Your task to perform on an android device: turn pop-ups on in chrome Image 0: 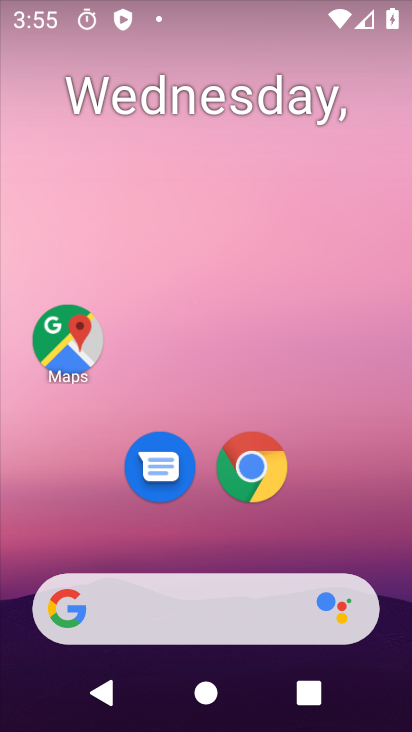
Step 0: click (252, 468)
Your task to perform on an android device: turn pop-ups on in chrome Image 1: 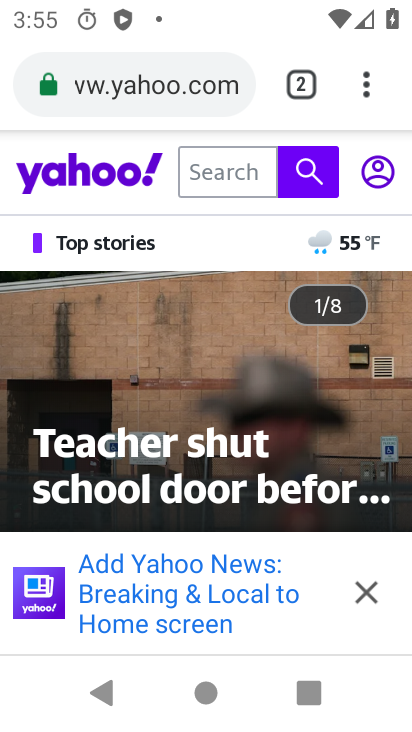
Step 1: click (364, 77)
Your task to perform on an android device: turn pop-ups on in chrome Image 2: 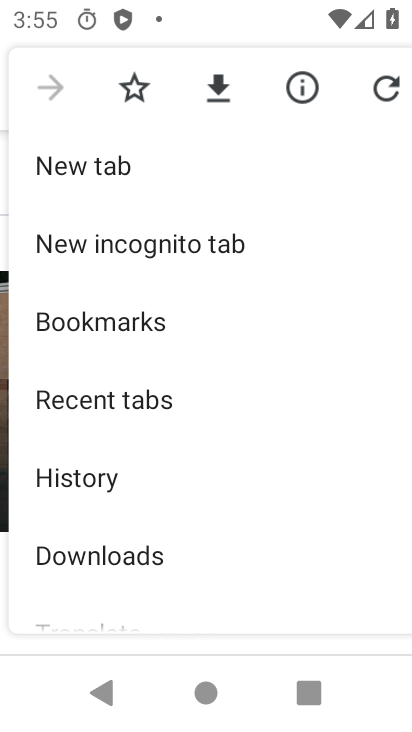
Step 2: drag from (233, 424) to (189, 51)
Your task to perform on an android device: turn pop-ups on in chrome Image 3: 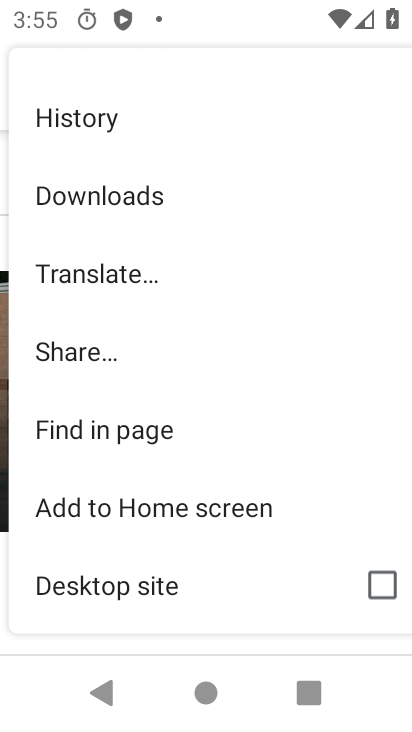
Step 3: drag from (197, 461) to (224, 92)
Your task to perform on an android device: turn pop-ups on in chrome Image 4: 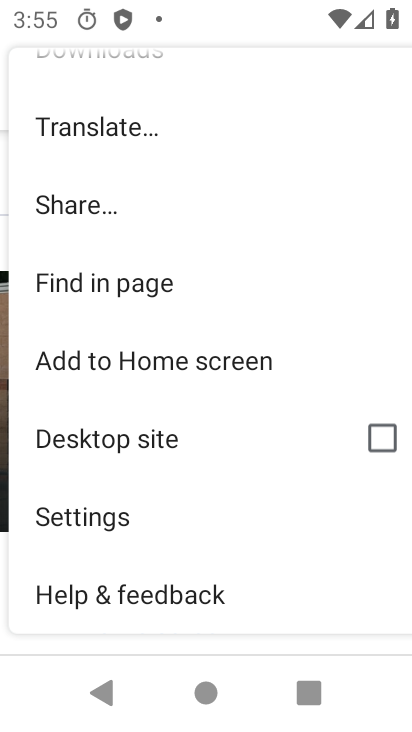
Step 4: click (147, 517)
Your task to perform on an android device: turn pop-ups on in chrome Image 5: 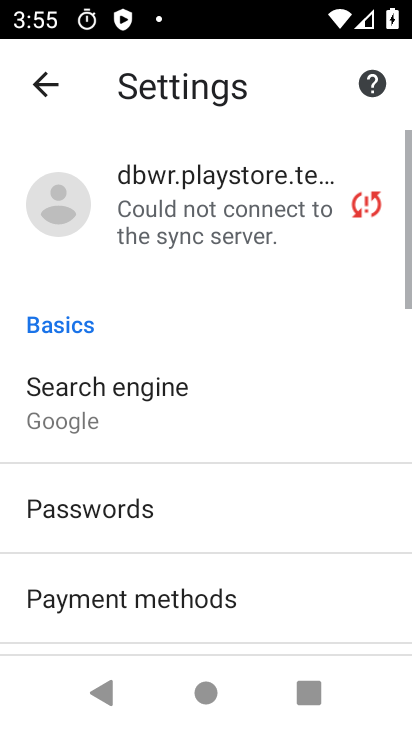
Step 5: drag from (210, 497) to (190, 7)
Your task to perform on an android device: turn pop-ups on in chrome Image 6: 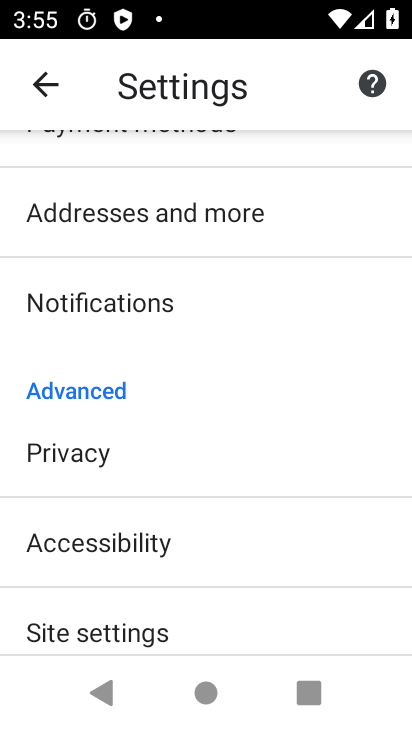
Step 6: click (147, 628)
Your task to perform on an android device: turn pop-ups on in chrome Image 7: 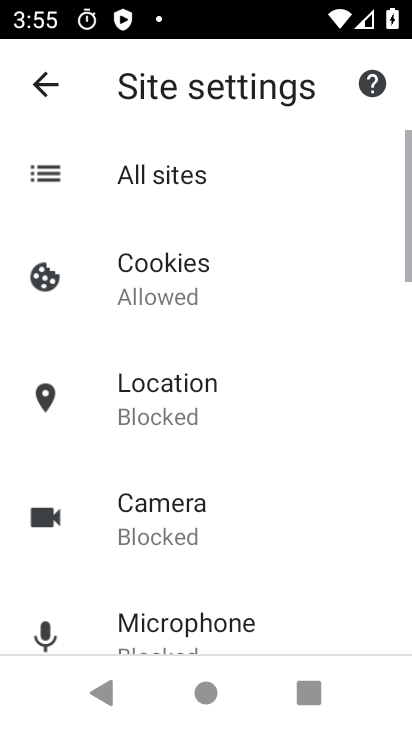
Step 7: drag from (271, 525) to (284, 136)
Your task to perform on an android device: turn pop-ups on in chrome Image 8: 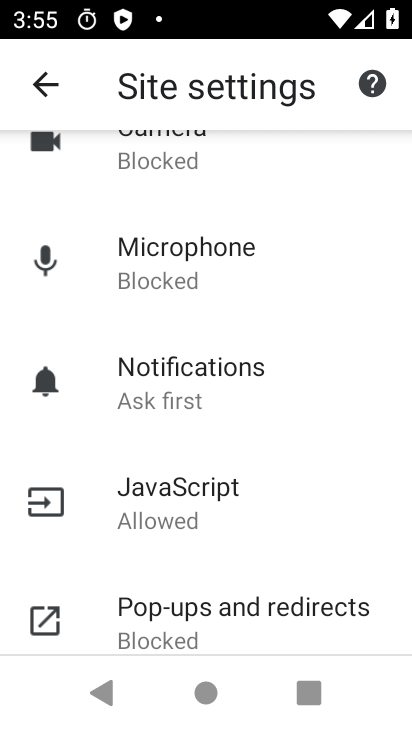
Step 8: click (179, 600)
Your task to perform on an android device: turn pop-ups on in chrome Image 9: 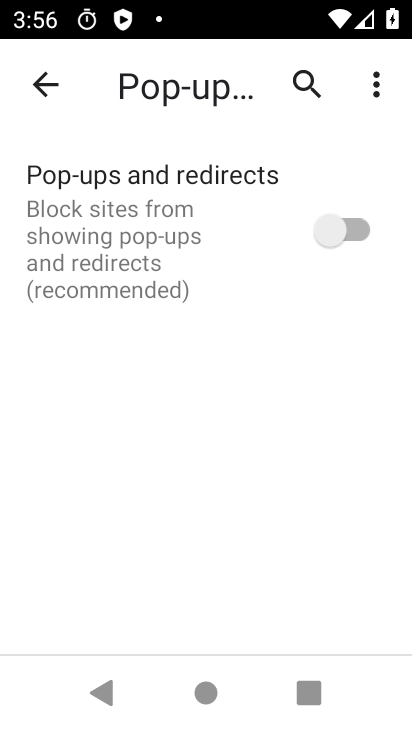
Step 9: click (339, 234)
Your task to perform on an android device: turn pop-ups on in chrome Image 10: 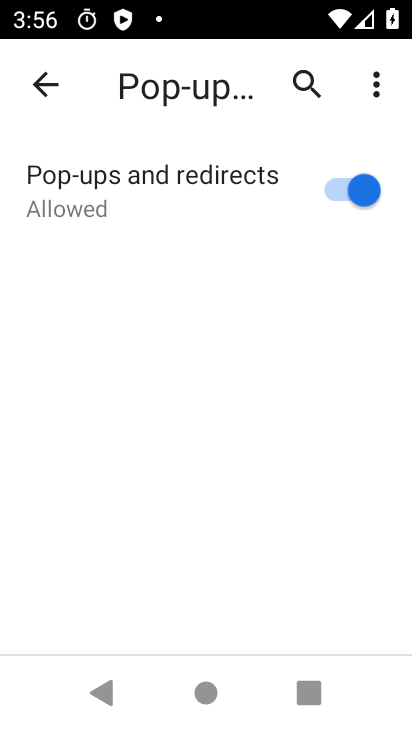
Step 10: task complete